Your task to perform on an android device: Open Google Image 0: 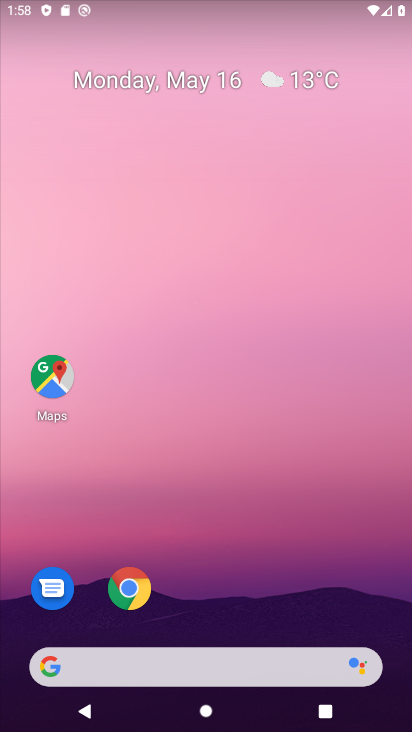
Step 0: drag from (186, 539) to (268, 121)
Your task to perform on an android device: Open Google Image 1: 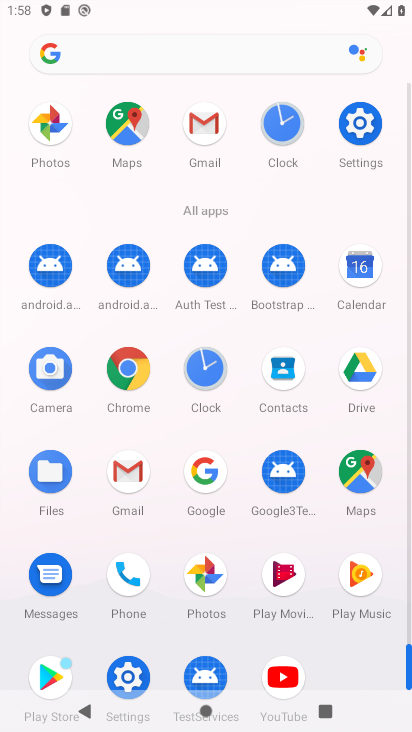
Step 1: click (209, 477)
Your task to perform on an android device: Open Google Image 2: 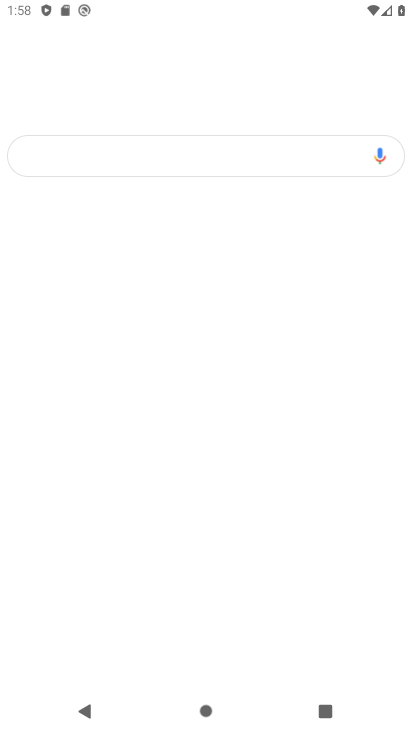
Step 2: click (207, 472)
Your task to perform on an android device: Open Google Image 3: 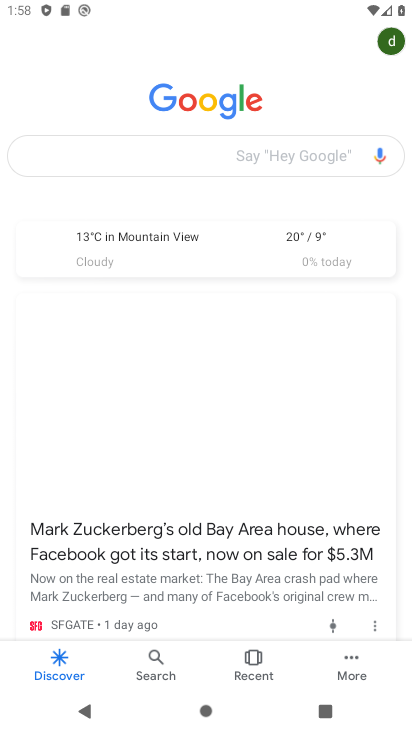
Step 3: task complete